Your task to perform on an android device: toggle pop-ups in chrome Image 0: 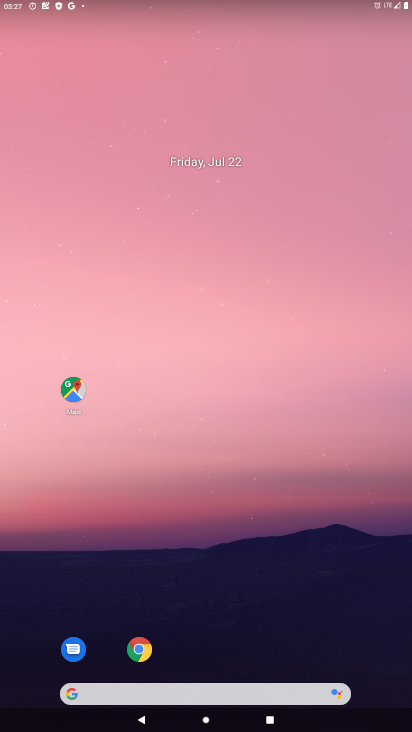
Step 0: drag from (301, 607) to (309, 46)
Your task to perform on an android device: toggle pop-ups in chrome Image 1: 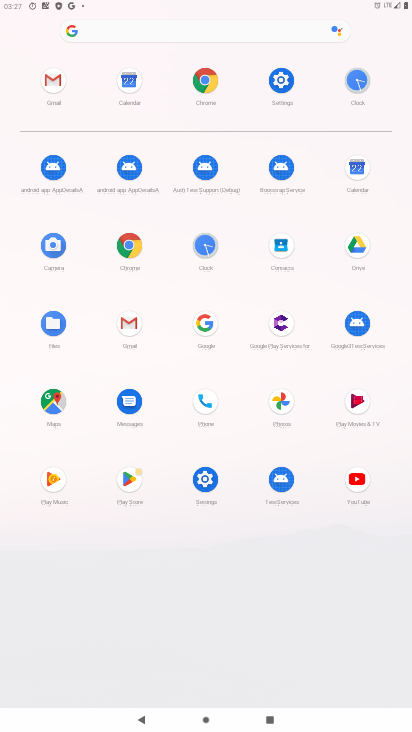
Step 1: click (203, 78)
Your task to perform on an android device: toggle pop-ups in chrome Image 2: 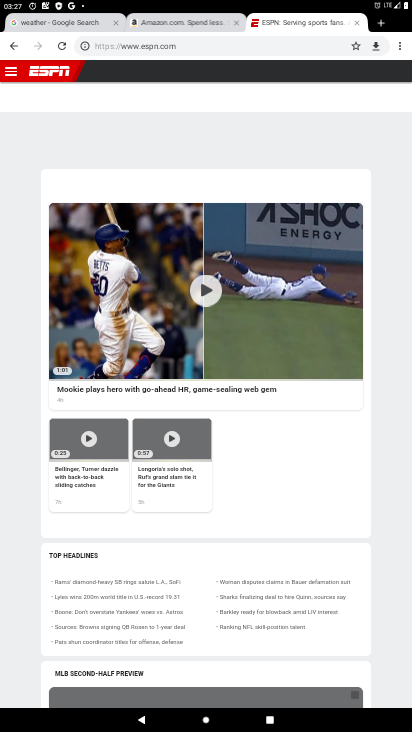
Step 2: drag from (399, 41) to (308, 332)
Your task to perform on an android device: toggle pop-ups in chrome Image 3: 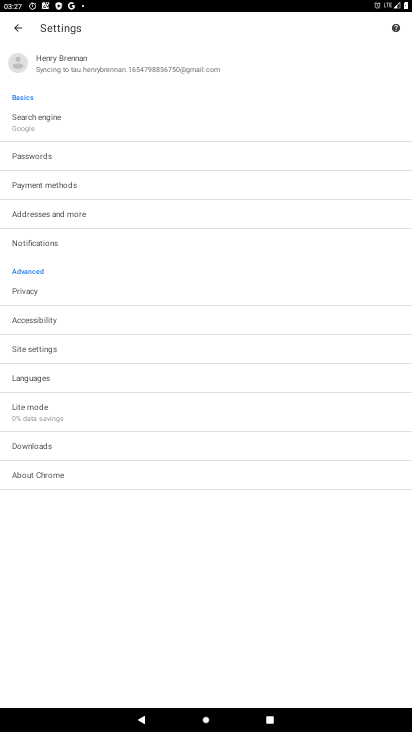
Step 3: click (49, 346)
Your task to perform on an android device: toggle pop-ups in chrome Image 4: 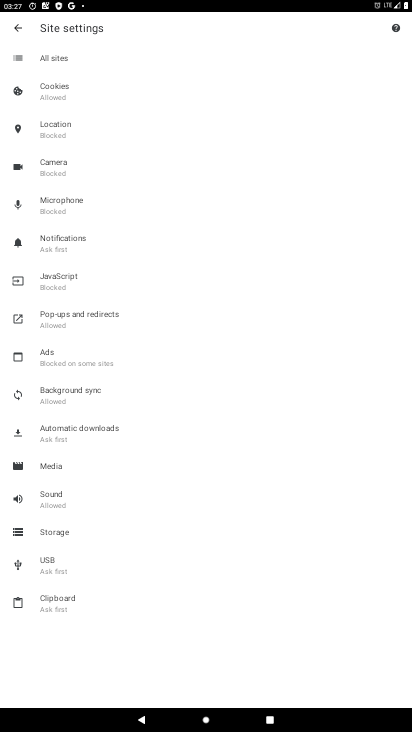
Step 4: click (78, 321)
Your task to perform on an android device: toggle pop-ups in chrome Image 5: 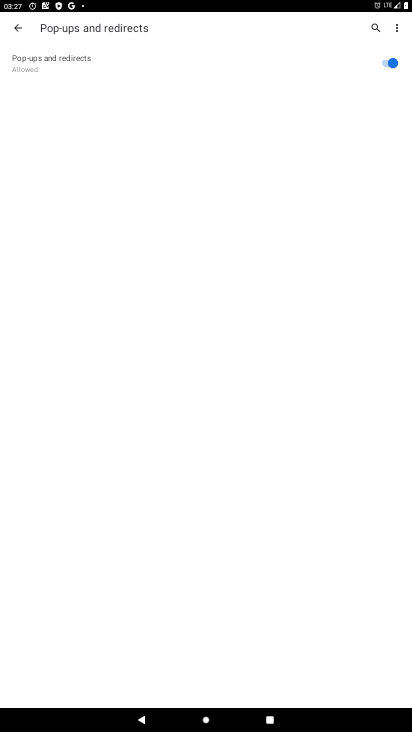
Step 5: click (388, 60)
Your task to perform on an android device: toggle pop-ups in chrome Image 6: 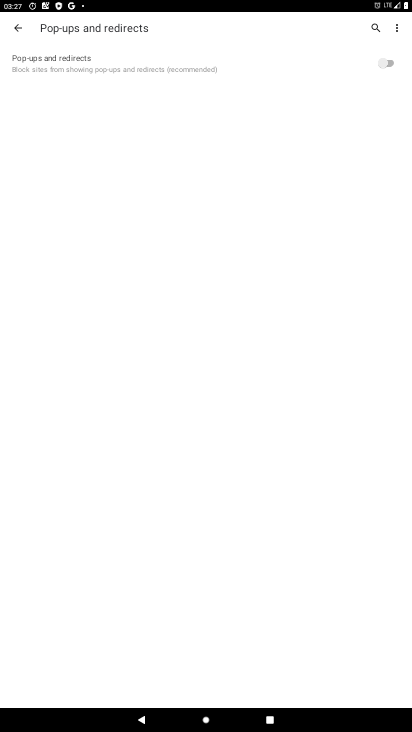
Step 6: task complete